Your task to perform on an android device: turn off improve location accuracy Image 0: 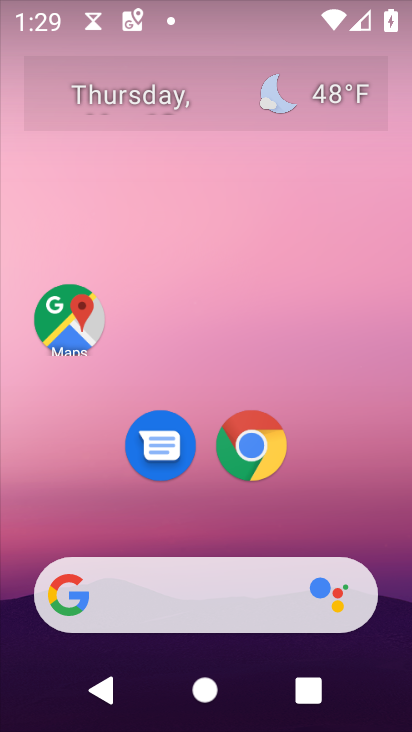
Step 0: drag from (301, 507) to (326, 182)
Your task to perform on an android device: turn off improve location accuracy Image 1: 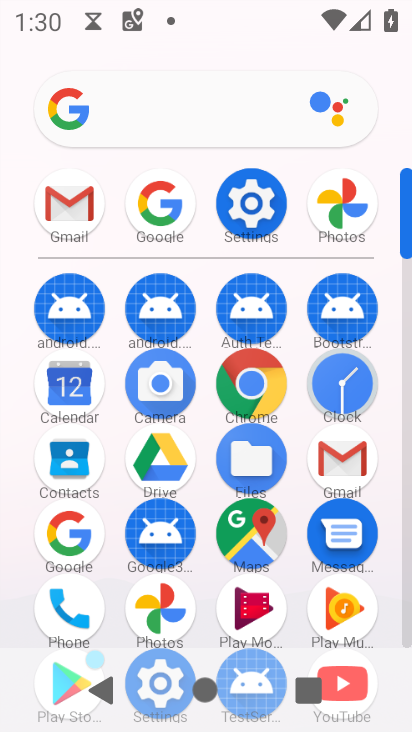
Step 1: click (247, 212)
Your task to perform on an android device: turn off improve location accuracy Image 2: 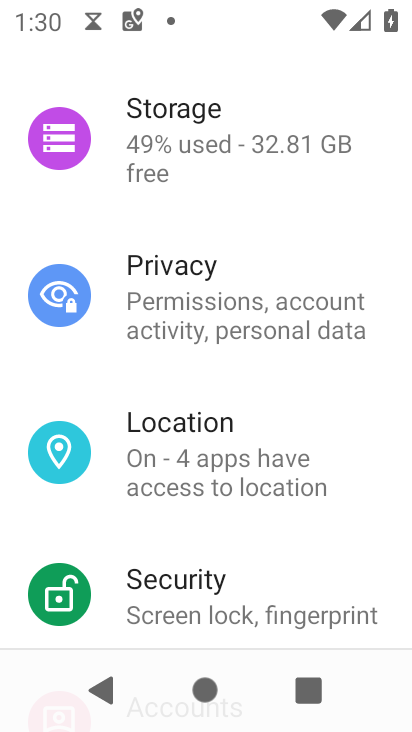
Step 2: click (302, 413)
Your task to perform on an android device: turn off improve location accuracy Image 3: 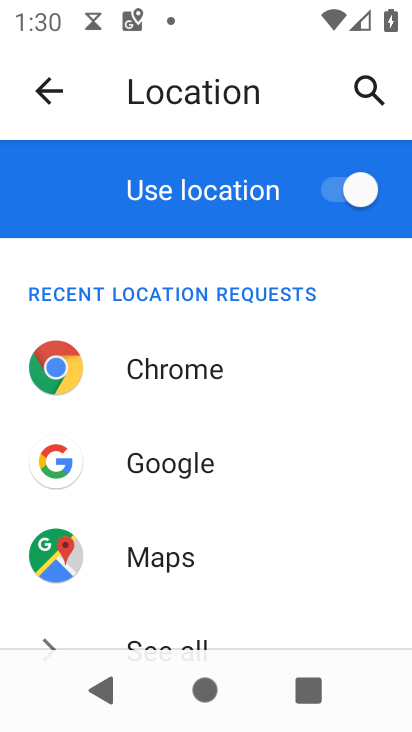
Step 3: drag from (301, 547) to (290, 212)
Your task to perform on an android device: turn off improve location accuracy Image 4: 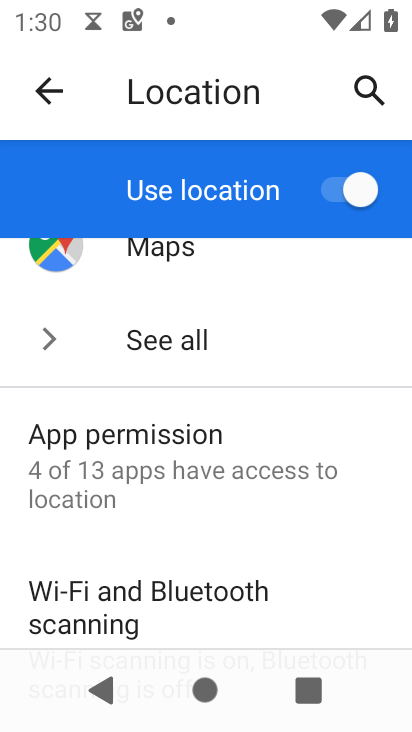
Step 4: drag from (264, 576) to (264, 352)
Your task to perform on an android device: turn off improve location accuracy Image 5: 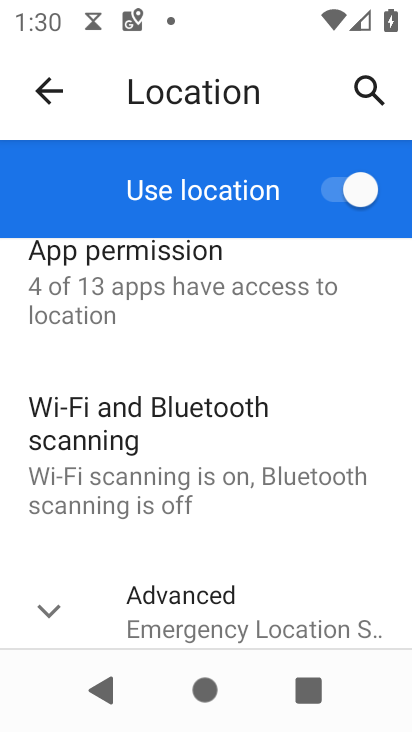
Step 5: click (260, 613)
Your task to perform on an android device: turn off improve location accuracy Image 6: 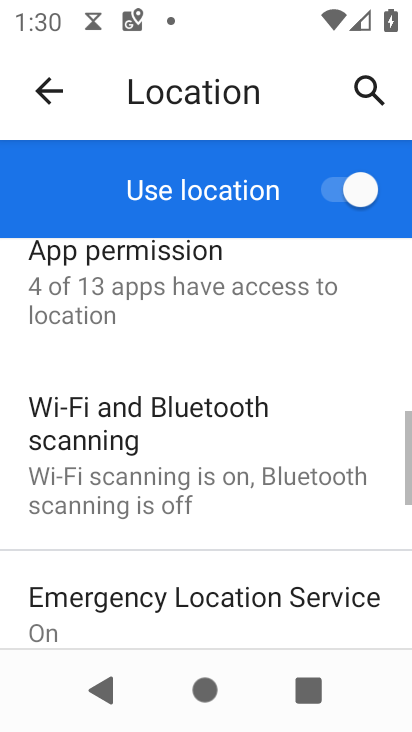
Step 6: drag from (260, 605) to (259, 318)
Your task to perform on an android device: turn off improve location accuracy Image 7: 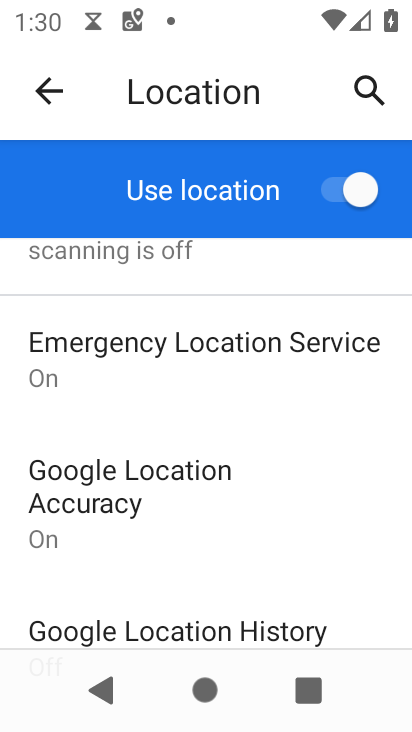
Step 7: drag from (250, 562) to (245, 389)
Your task to perform on an android device: turn off improve location accuracy Image 8: 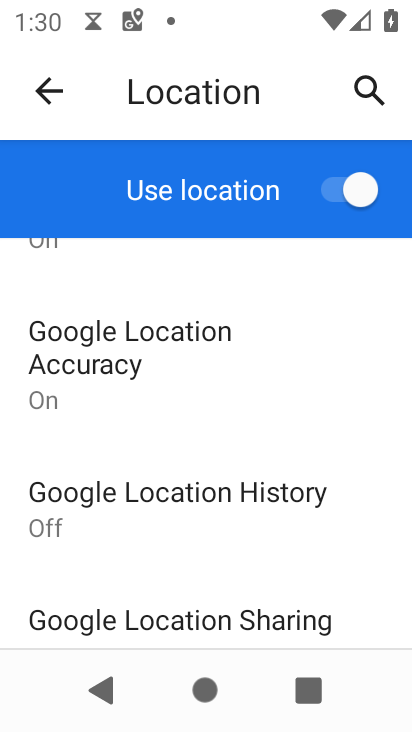
Step 8: drag from (247, 581) to (239, 468)
Your task to perform on an android device: turn off improve location accuracy Image 9: 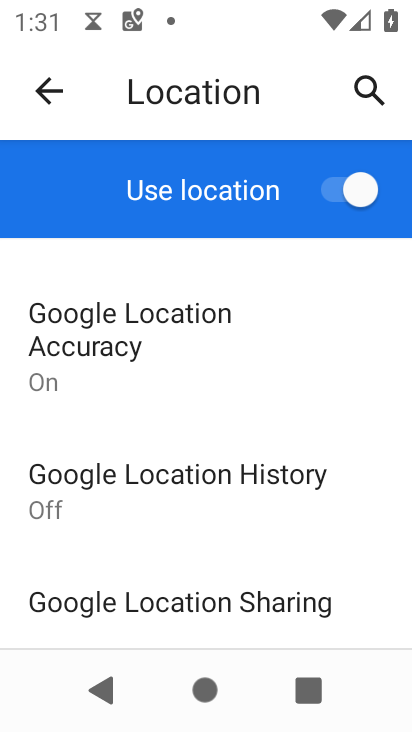
Step 9: click (158, 337)
Your task to perform on an android device: turn off improve location accuracy Image 10: 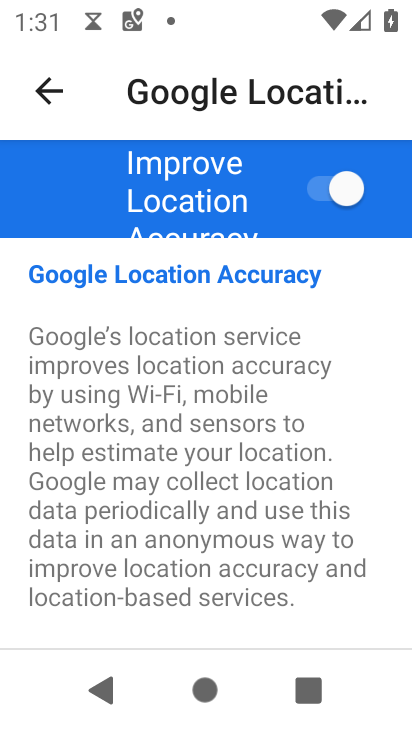
Step 10: click (323, 188)
Your task to perform on an android device: turn off improve location accuracy Image 11: 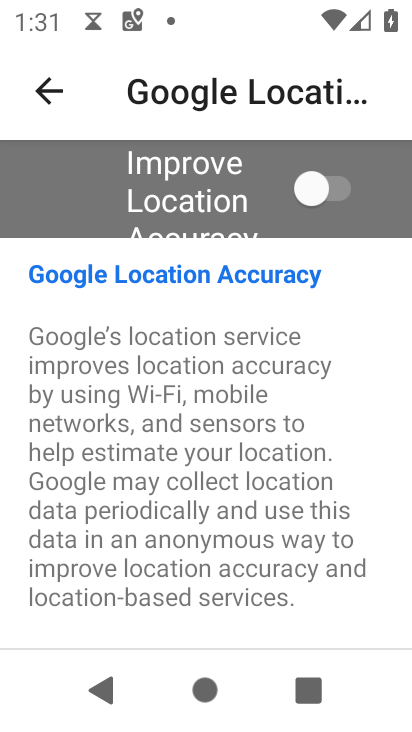
Step 11: task complete